Your task to perform on an android device: Open Google Maps Image 0: 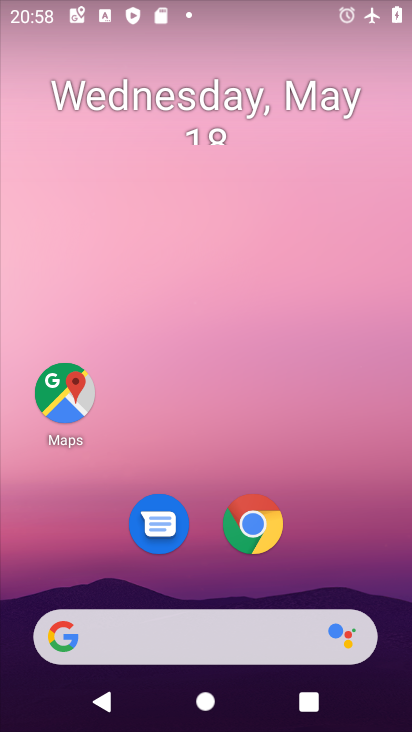
Step 0: click (54, 398)
Your task to perform on an android device: Open Google Maps Image 1: 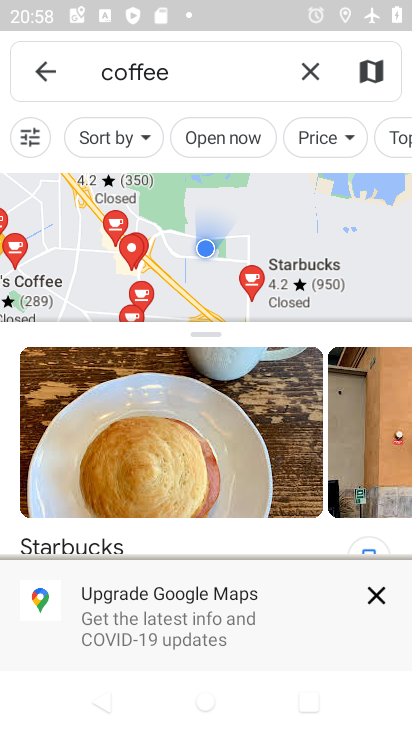
Step 1: click (315, 63)
Your task to perform on an android device: Open Google Maps Image 2: 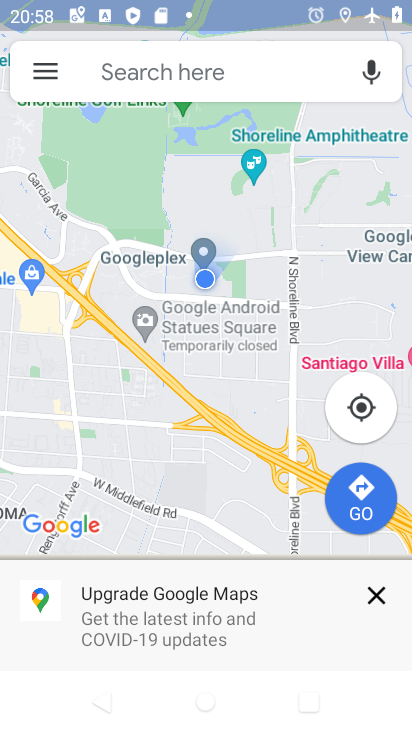
Step 2: task complete